Your task to perform on an android device: toggle improve location accuracy Image 0: 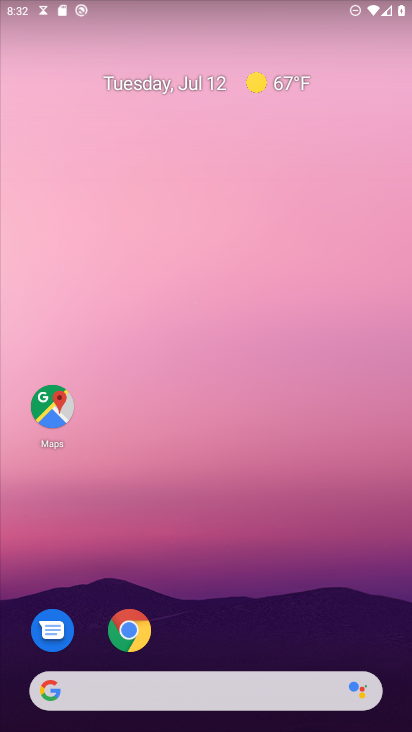
Step 0: drag from (274, 642) to (214, 158)
Your task to perform on an android device: toggle improve location accuracy Image 1: 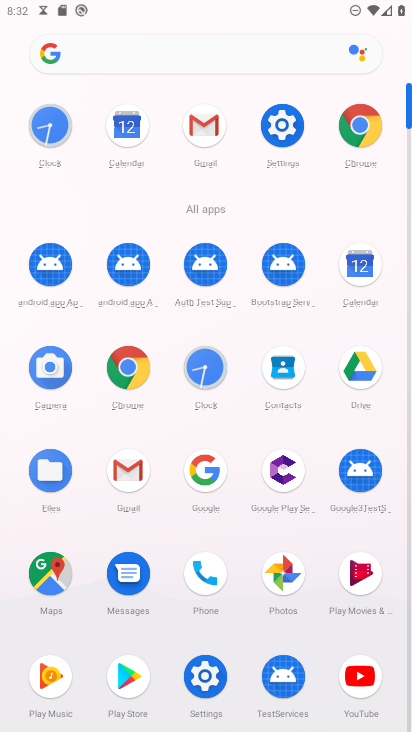
Step 1: click (291, 130)
Your task to perform on an android device: toggle improve location accuracy Image 2: 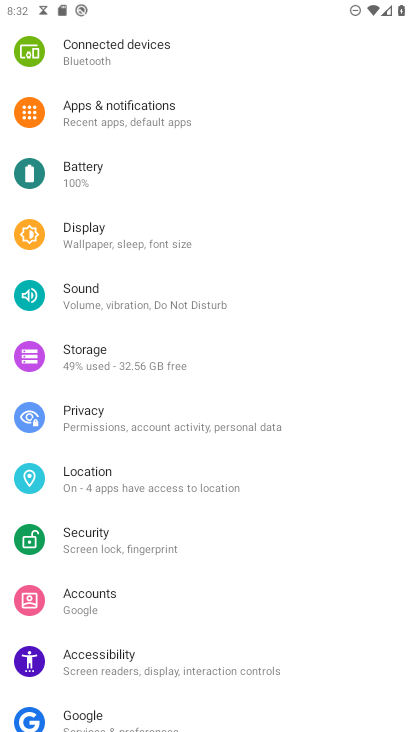
Step 2: click (208, 480)
Your task to perform on an android device: toggle improve location accuracy Image 3: 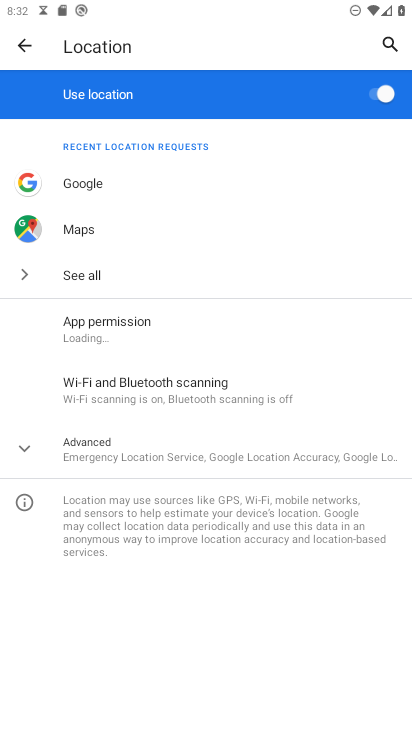
Step 3: click (220, 457)
Your task to perform on an android device: toggle improve location accuracy Image 4: 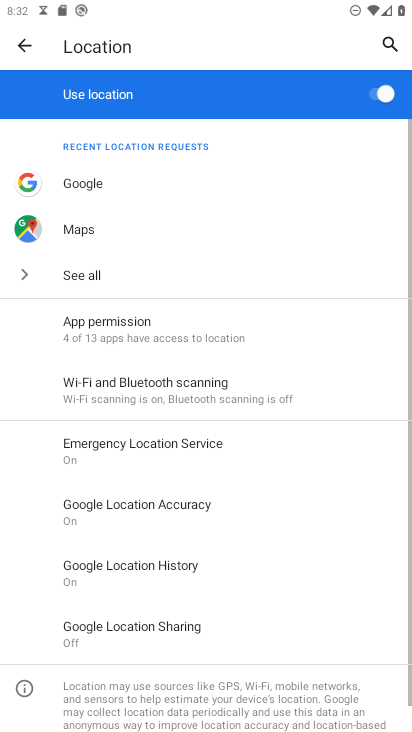
Step 4: click (205, 513)
Your task to perform on an android device: toggle improve location accuracy Image 5: 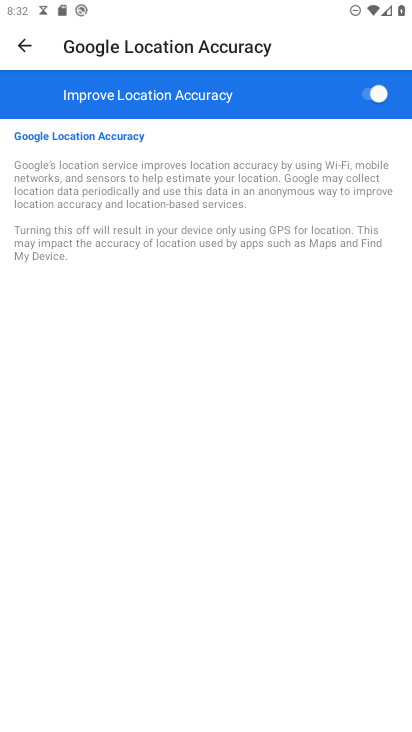
Step 5: click (369, 98)
Your task to perform on an android device: toggle improve location accuracy Image 6: 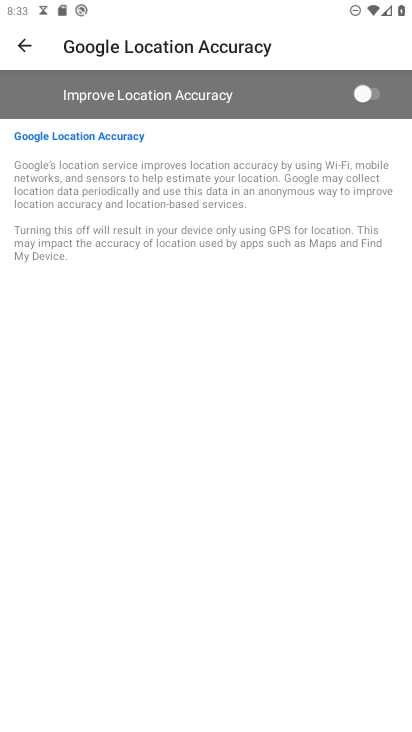
Step 6: task complete